Your task to perform on an android device: check the backup settings in the google photos Image 0: 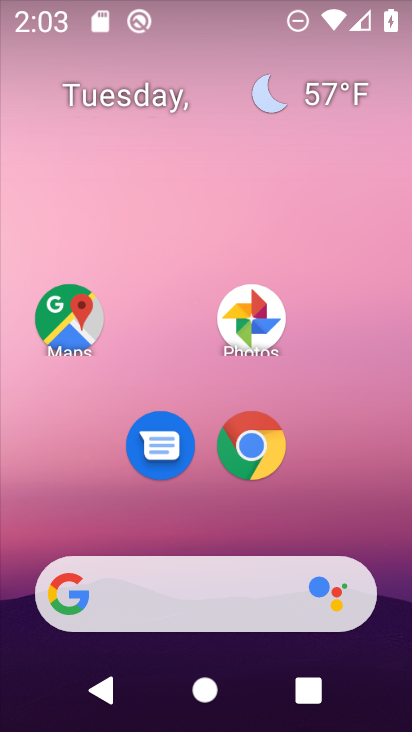
Step 0: drag from (384, 550) to (376, 288)
Your task to perform on an android device: check the backup settings in the google photos Image 1: 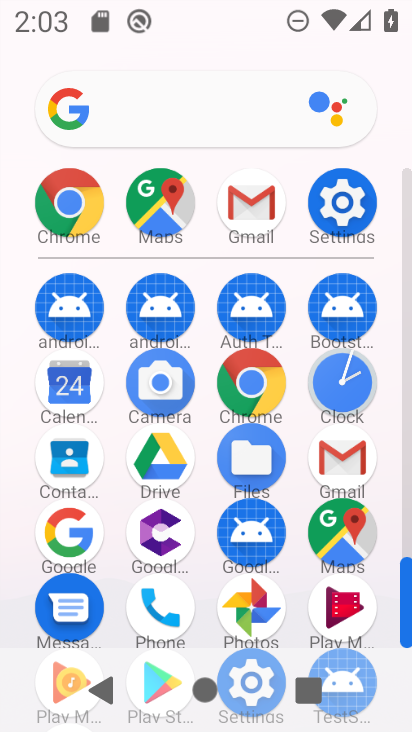
Step 1: drag from (375, 639) to (387, 372)
Your task to perform on an android device: check the backup settings in the google photos Image 2: 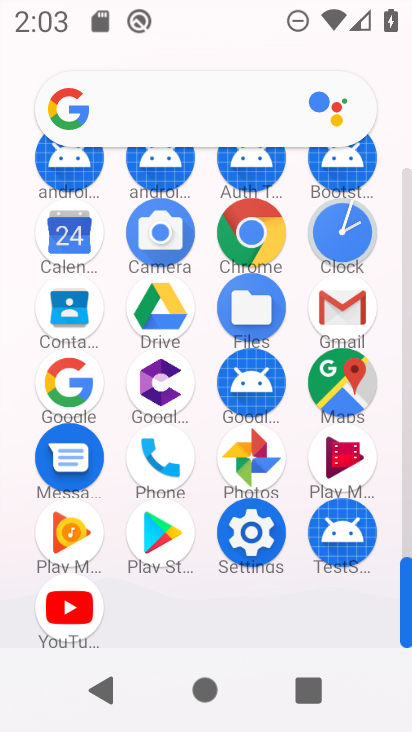
Step 2: click (274, 453)
Your task to perform on an android device: check the backup settings in the google photos Image 3: 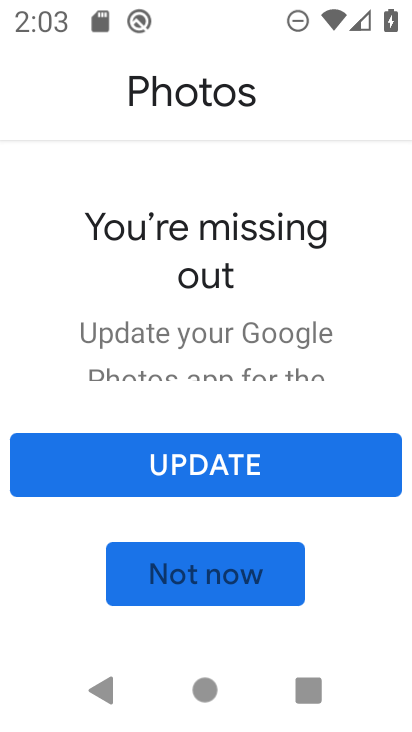
Step 3: click (274, 453)
Your task to perform on an android device: check the backup settings in the google photos Image 4: 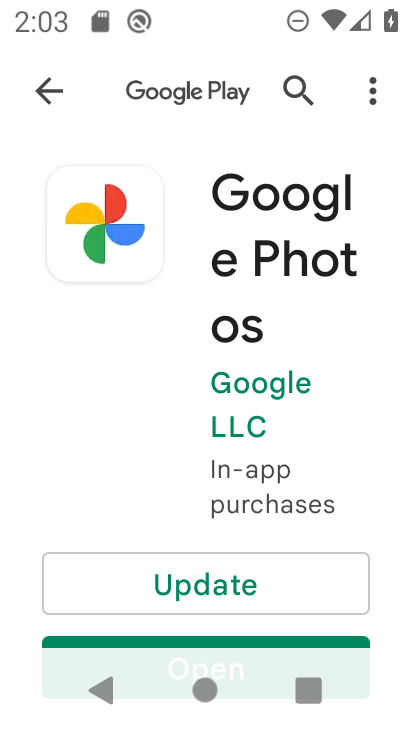
Step 4: click (270, 578)
Your task to perform on an android device: check the backup settings in the google photos Image 5: 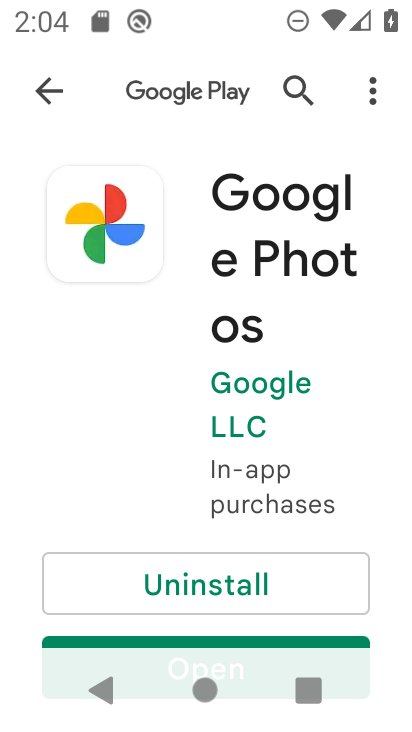
Step 5: drag from (392, 535) to (394, 398)
Your task to perform on an android device: check the backup settings in the google photos Image 6: 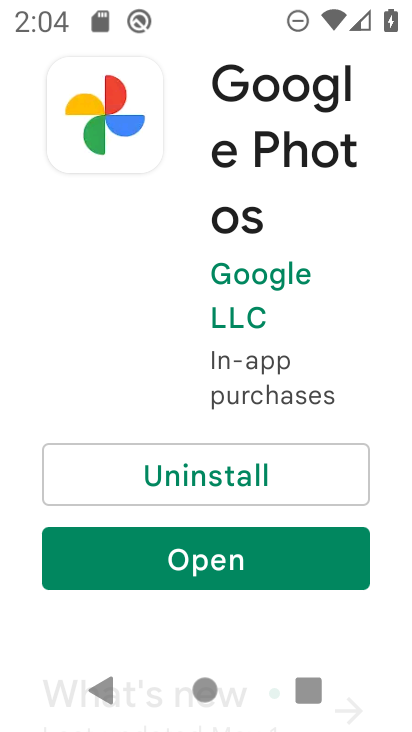
Step 6: click (337, 576)
Your task to perform on an android device: check the backup settings in the google photos Image 7: 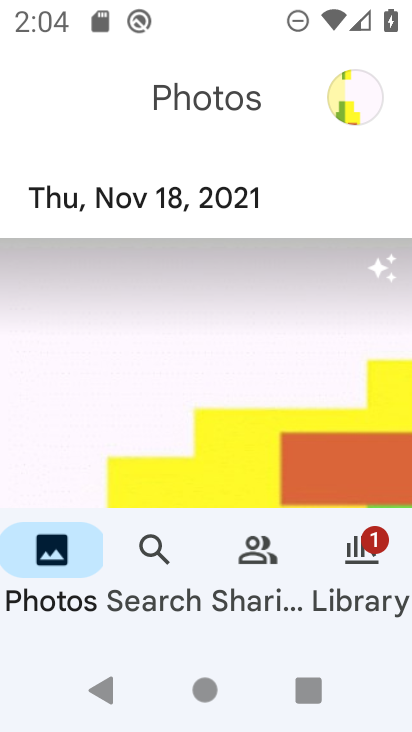
Step 7: click (370, 110)
Your task to perform on an android device: check the backup settings in the google photos Image 8: 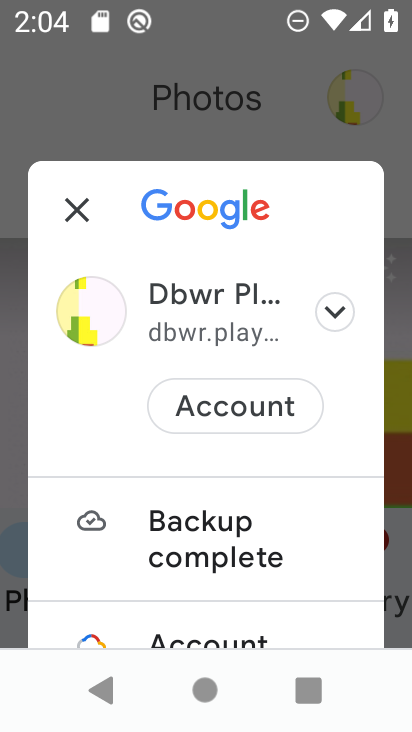
Step 8: drag from (323, 548) to (325, 350)
Your task to perform on an android device: check the backup settings in the google photos Image 9: 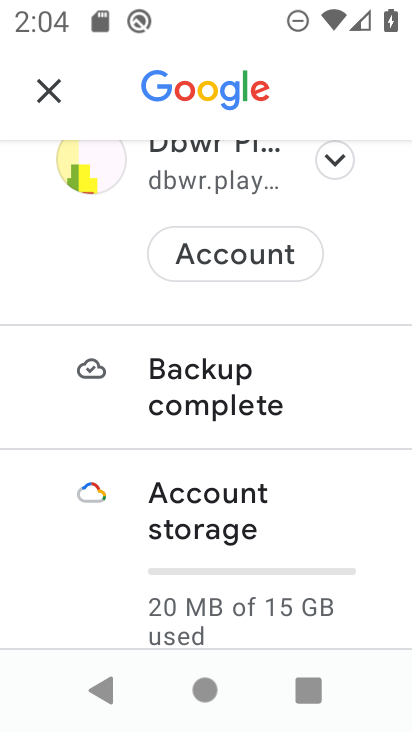
Step 9: drag from (298, 561) to (319, 390)
Your task to perform on an android device: check the backup settings in the google photos Image 10: 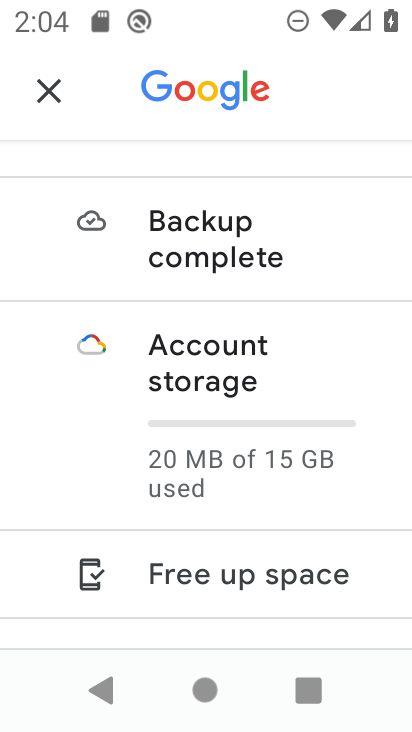
Step 10: drag from (354, 595) to (366, 423)
Your task to perform on an android device: check the backup settings in the google photos Image 11: 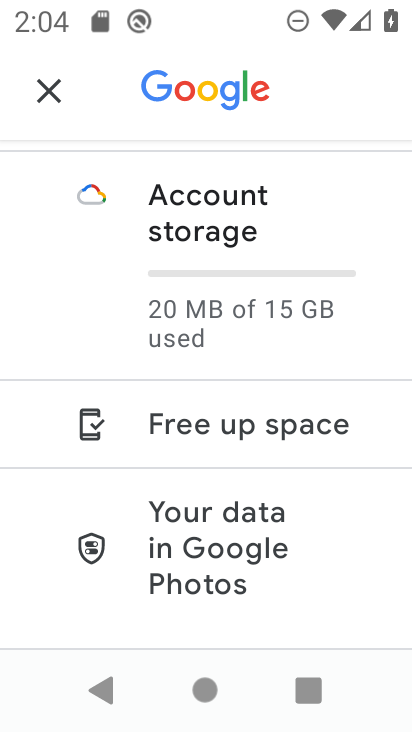
Step 11: drag from (355, 597) to (363, 458)
Your task to perform on an android device: check the backup settings in the google photos Image 12: 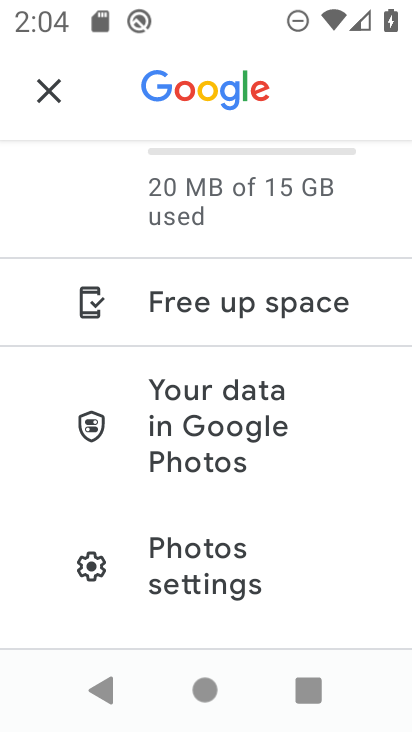
Step 12: click (241, 570)
Your task to perform on an android device: check the backup settings in the google photos Image 13: 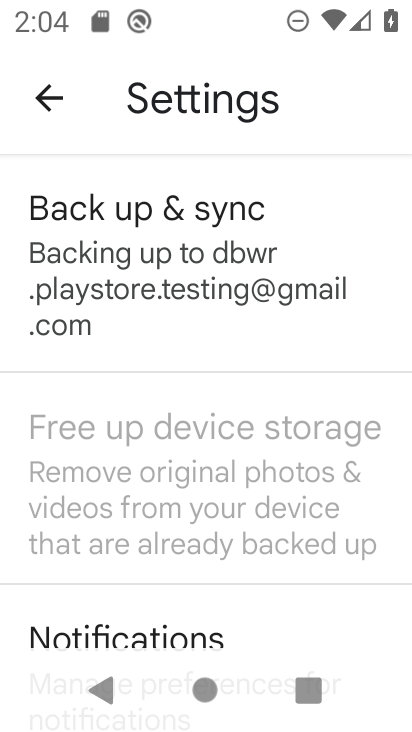
Step 13: click (285, 281)
Your task to perform on an android device: check the backup settings in the google photos Image 14: 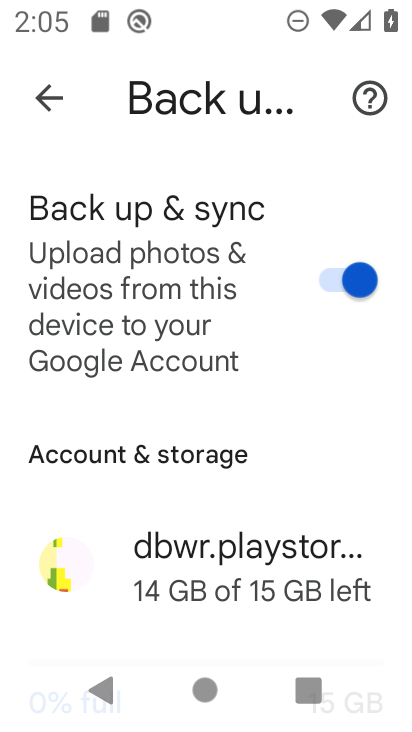
Step 14: task complete